Your task to perform on an android device: open a new tab in the chrome app Image 0: 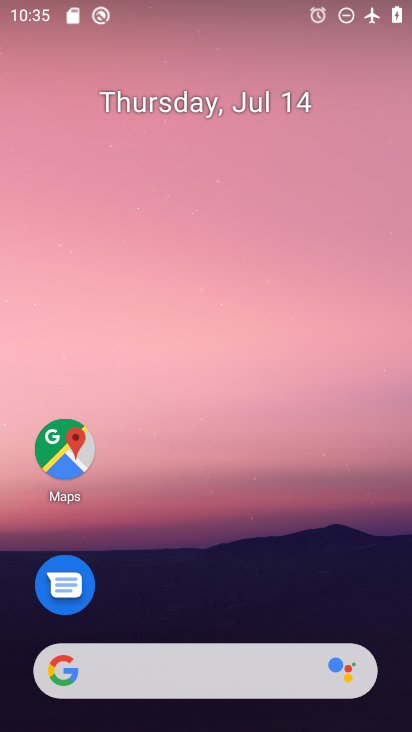
Step 0: drag from (224, 626) to (172, 109)
Your task to perform on an android device: open a new tab in the chrome app Image 1: 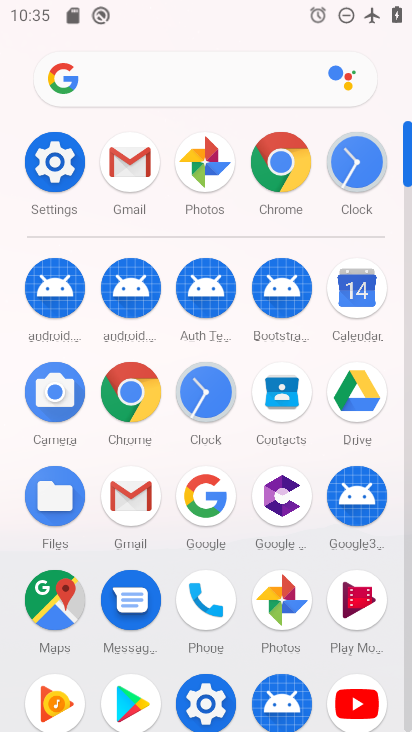
Step 1: click (132, 400)
Your task to perform on an android device: open a new tab in the chrome app Image 2: 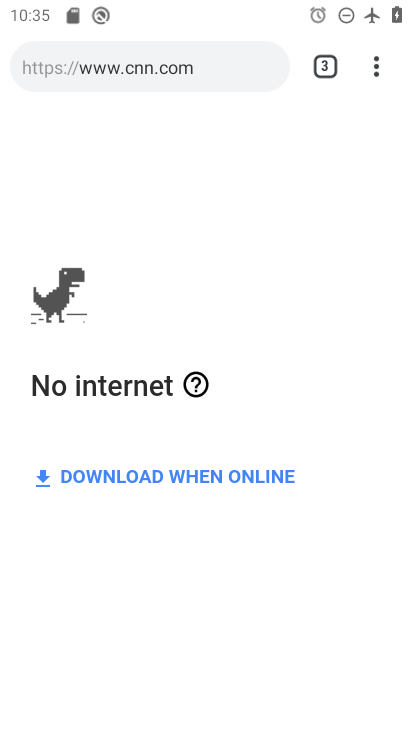
Step 2: click (368, 58)
Your task to perform on an android device: open a new tab in the chrome app Image 3: 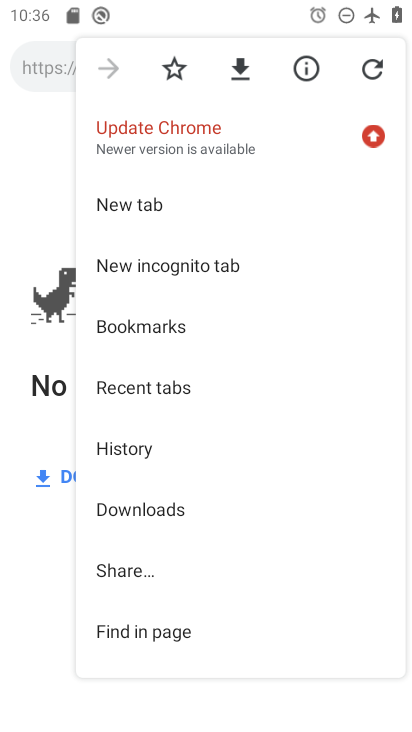
Step 3: click (177, 200)
Your task to perform on an android device: open a new tab in the chrome app Image 4: 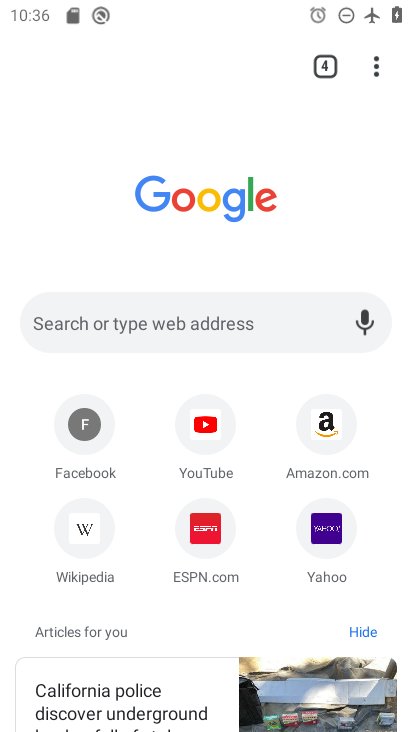
Step 4: task complete